Your task to perform on an android device: open a bookmark in the chrome app Image 0: 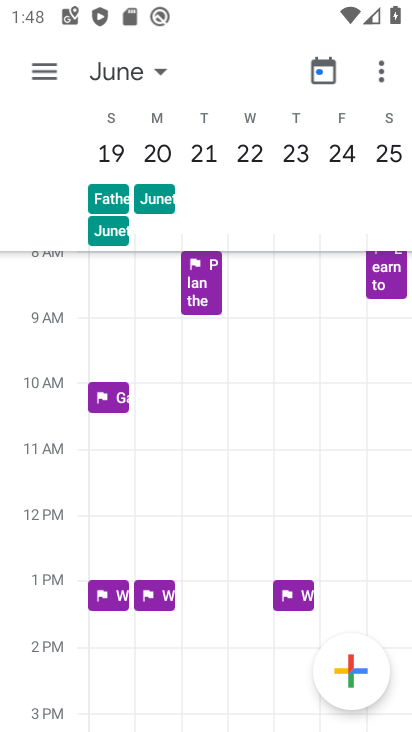
Step 0: press home button
Your task to perform on an android device: open a bookmark in the chrome app Image 1: 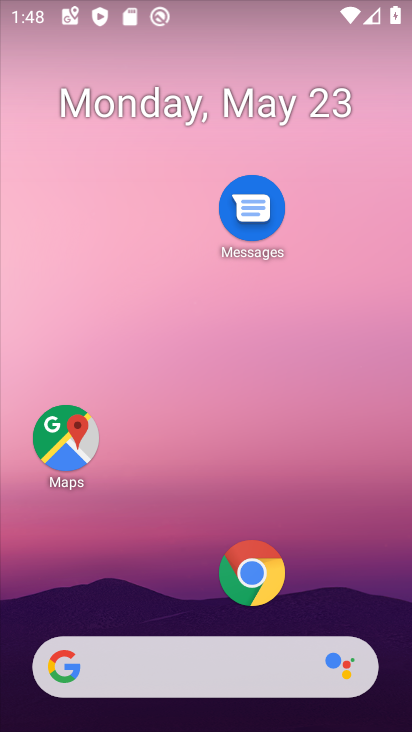
Step 1: drag from (141, 545) to (242, 73)
Your task to perform on an android device: open a bookmark in the chrome app Image 2: 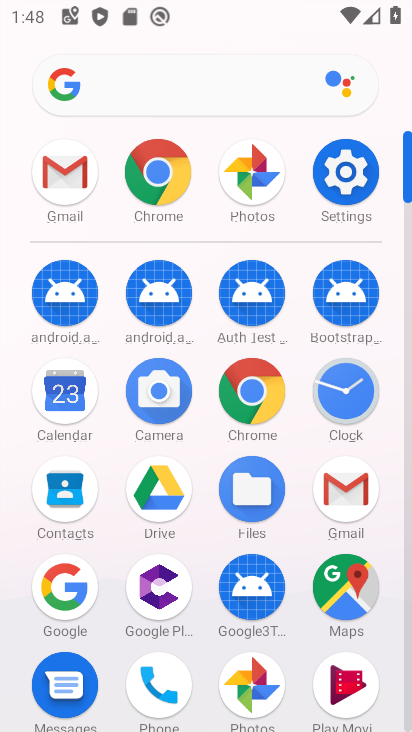
Step 2: click (173, 175)
Your task to perform on an android device: open a bookmark in the chrome app Image 3: 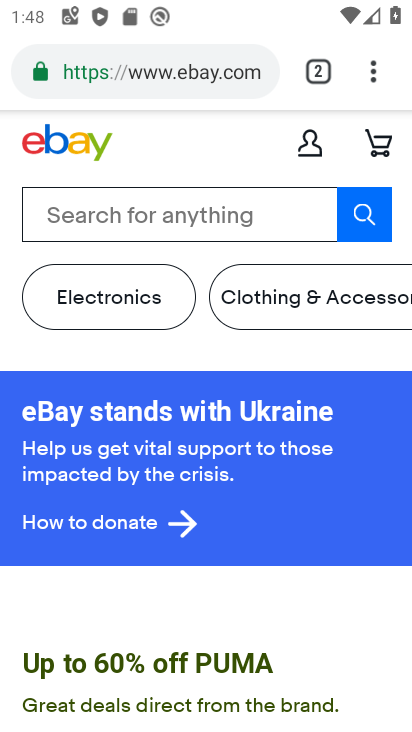
Step 3: click (374, 62)
Your task to perform on an android device: open a bookmark in the chrome app Image 4: 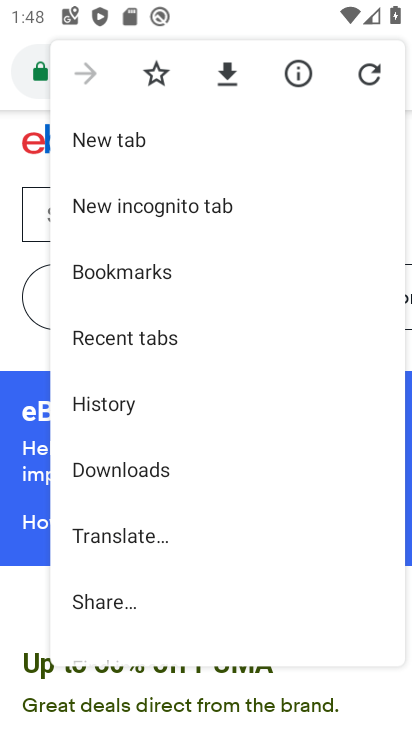
Step 4: click (149, 271)
Your task to perform on an android device: open a bookmark in the chrome app Image 5: 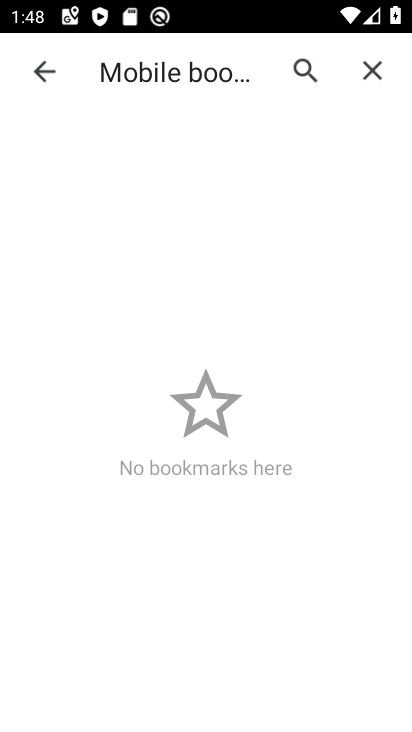
Step 5: task complete